Your task to perform on an android device: Add razer blade to the cart on walmart.com, then select checkout. Image 0: 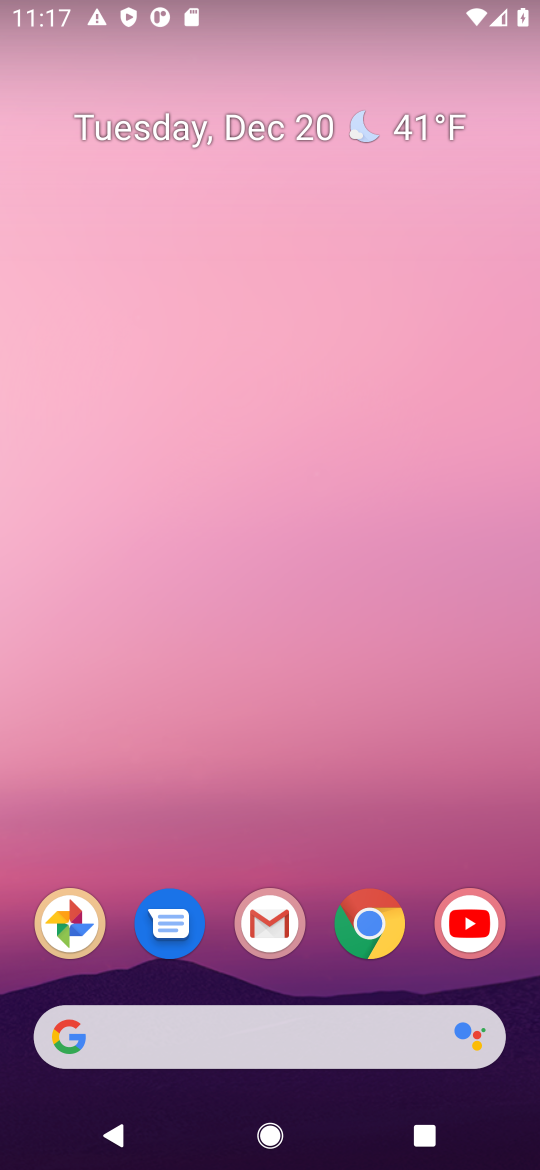
Step 0: press home button
Your task to perform on an android device: Add razer blade to the cart on walmart.com, then select checkout. Image 1: 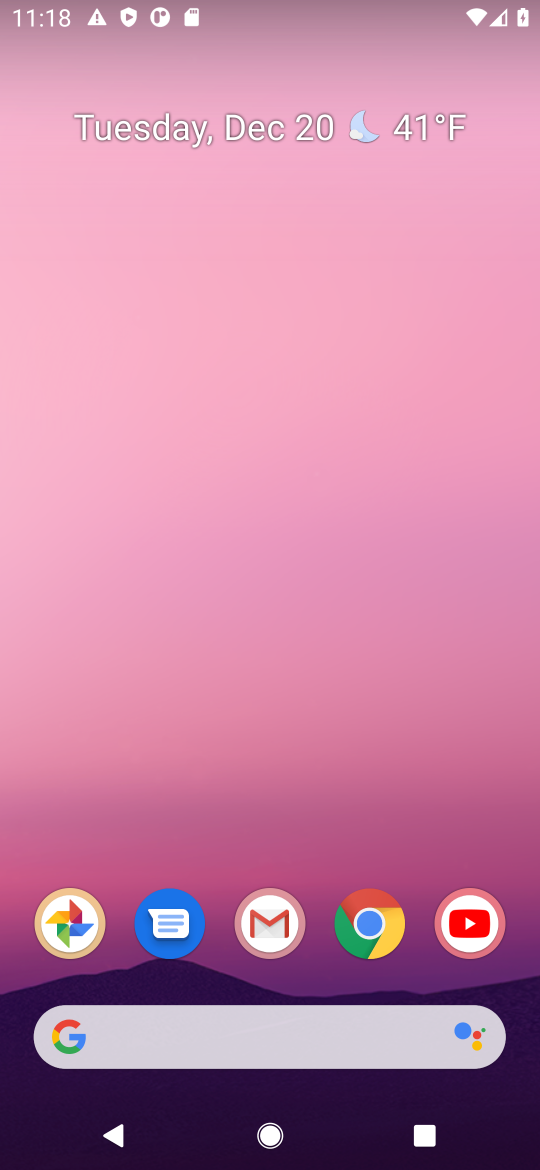
Step 1: click (358, 938)
Your task to perform on an android device: Add razer blade to the cart on walmart.com, then select checkout. Image 2: 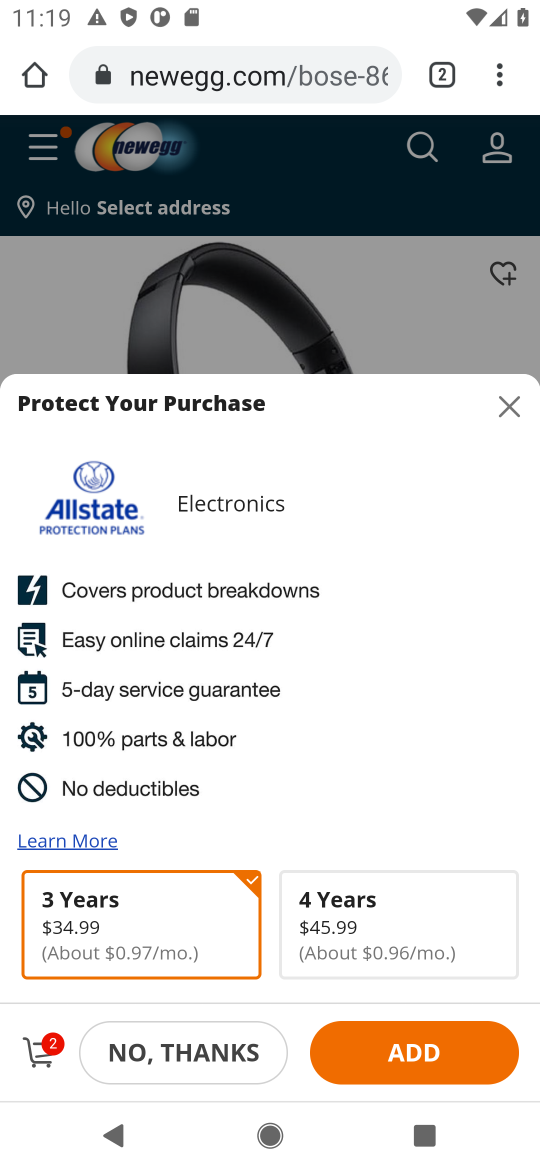
Step 2: task complete